Your task to perform on an android device: Open calendar and show me the second week of next month Image 0: 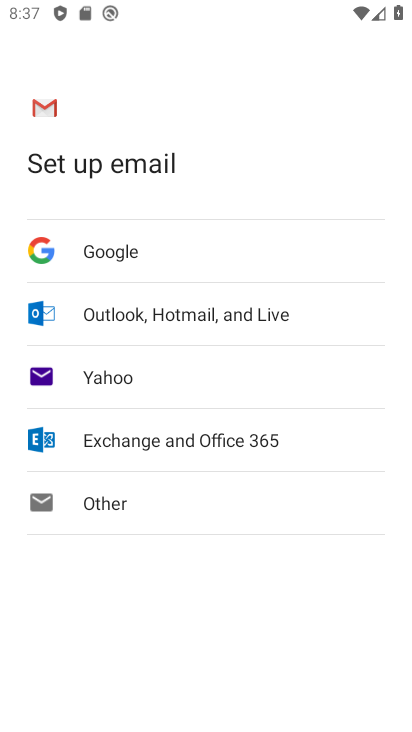
Step 0: press home button
Your task to perform on an android device: Open calendar and show me the second week of next month Image 1: 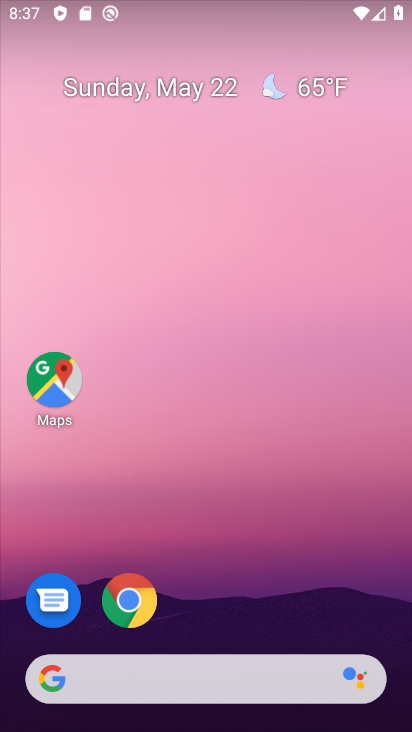
Step 1: drag from (186, 621) to (201, 136)
Your task to perform on an android device: Open calendar and show me the second week of next month Image 2: 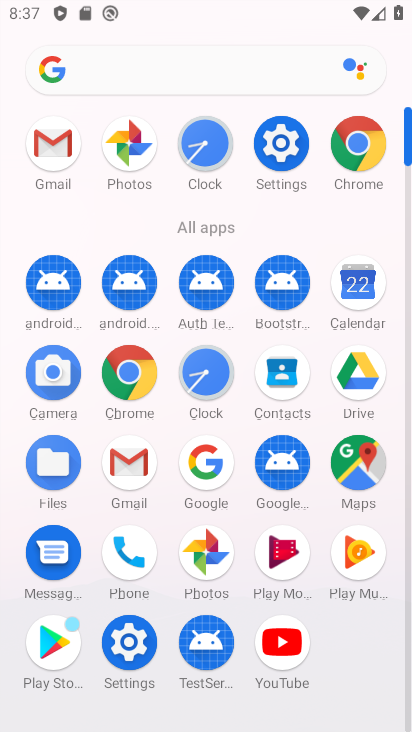
Step 2: click (371, 307)
Your task to perform on an android device: Open calendar and show me the second week of next month Image 3: 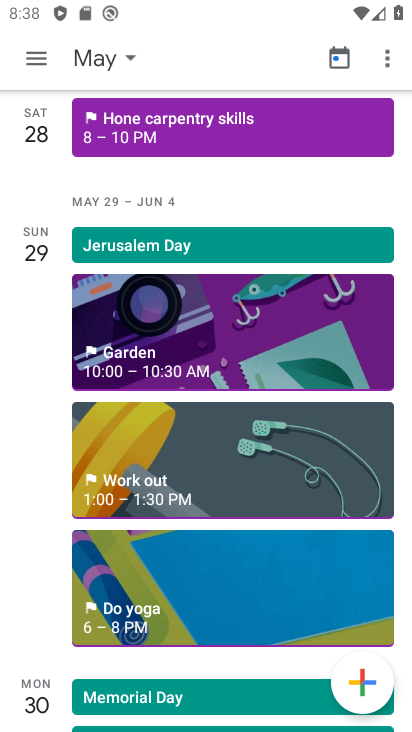
Step 3: click (47, 66)
Your task to perform on an android device: Open calendar and show me the second week of next month Image 4: 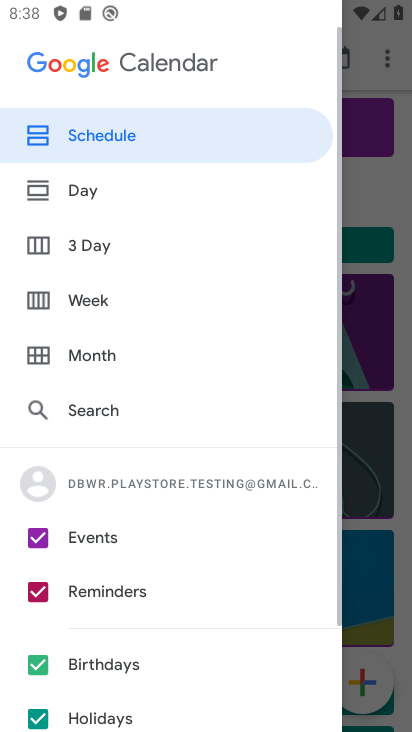
Step 4: click (92, 304)
Your task to perform on an android device: Open calendar and show me the second week of next month Image 5: 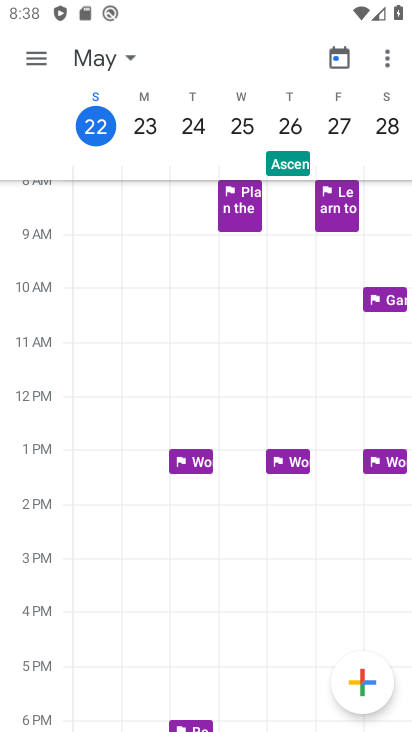
Step 5: click (90, 50)
Your task to perform on an android device: Open calendar and show me the second week of next month Image 6: 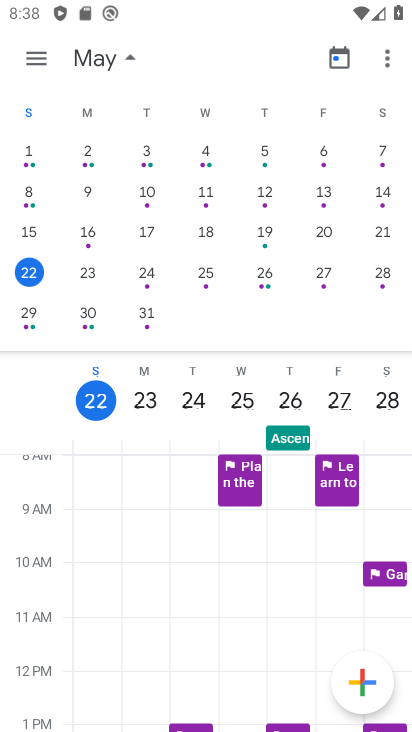
Step 6: drag from (322, 217) to (27, 223)
Your task to perform on an android device: Open calendar and show me the second week of next month Image 7: 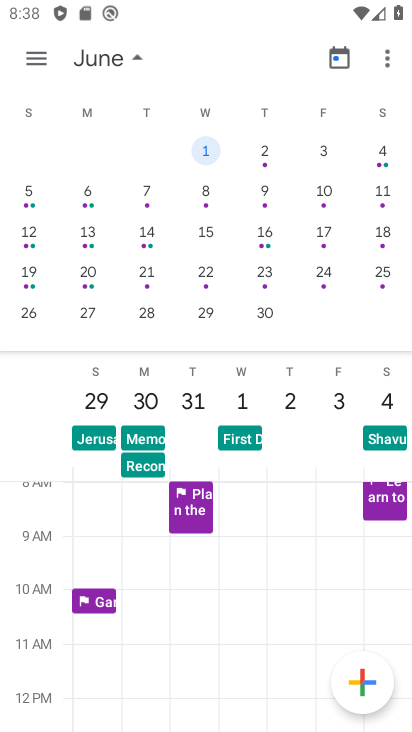
Step 7: click (29, 234)
Your task to perform on an android device: Open calendar and show me the second week of next month Image 8: 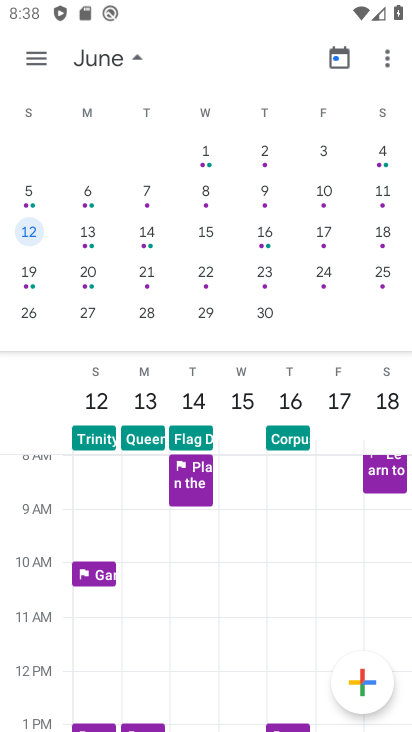
Step 8: task complete